Your task to perform on an android device: Go to notification settings Image 0: 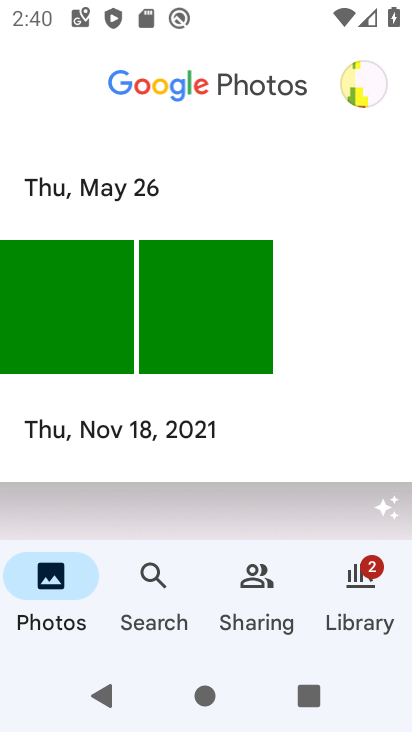
Step 0: press home button
Your task to perform on an android device: Go to notification settings Image 1: 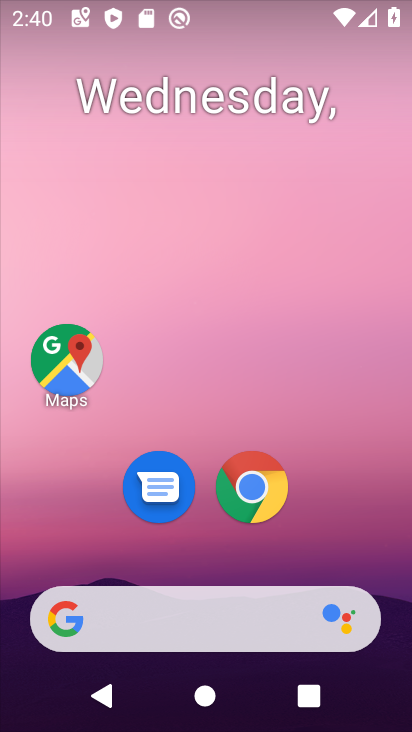
Step 1: drag from (366, 552) to (349, 191)
Your task to perform on an android device: Go to notification settings Image 2: 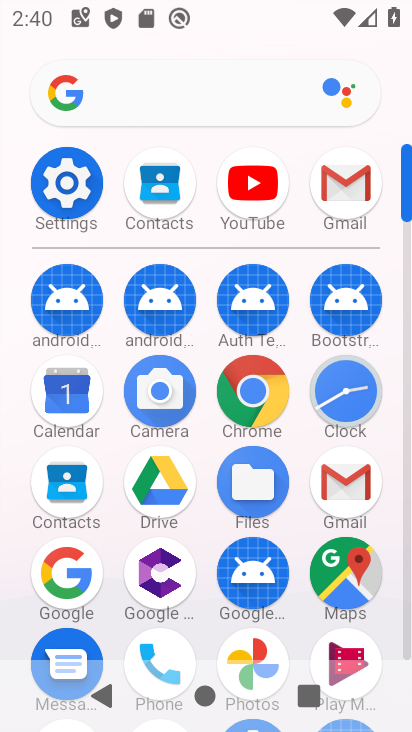
Step 2: click (76, 200)
Your task to perform on an android device: Go to notification settings Image 3: 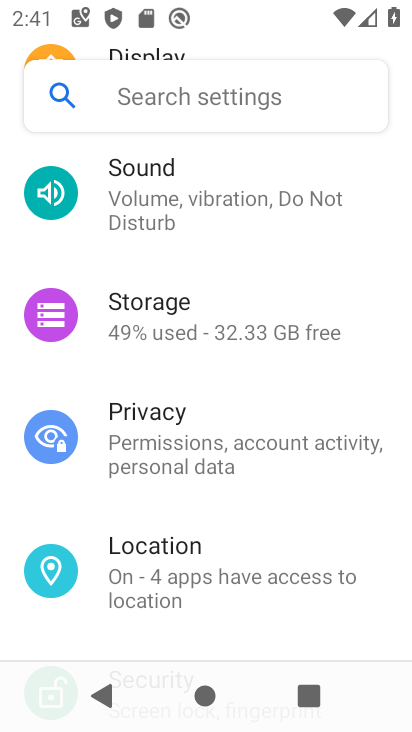
Step 3: drag from (310, 262) to (316, 386)
Your task to perform on an android device: Go to notification settings Image 4: 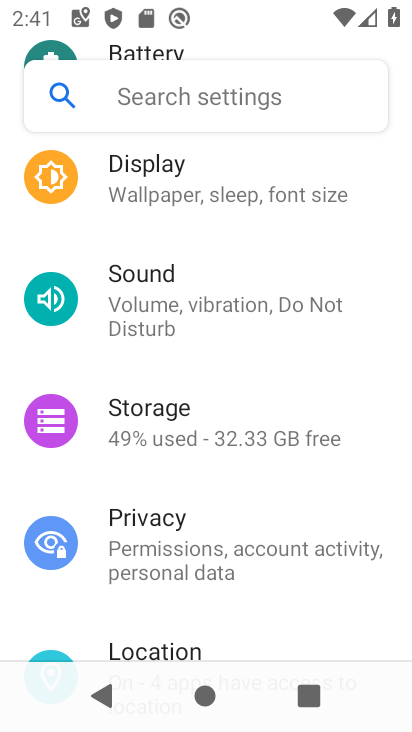
Step 4: drag from (365, 259) to (362, 359)
Your task to perform on an android device: Go to notification settings Image 5: 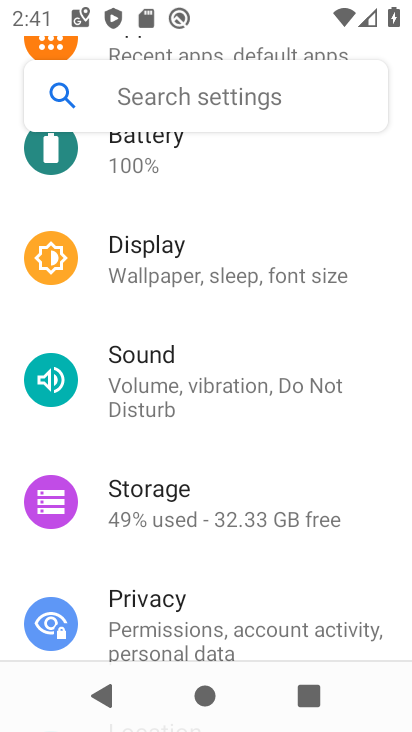
Step 5: drag from (360, 234) to (361, 345)
Your task to perform on an android device: Go to notification settings Image 6: 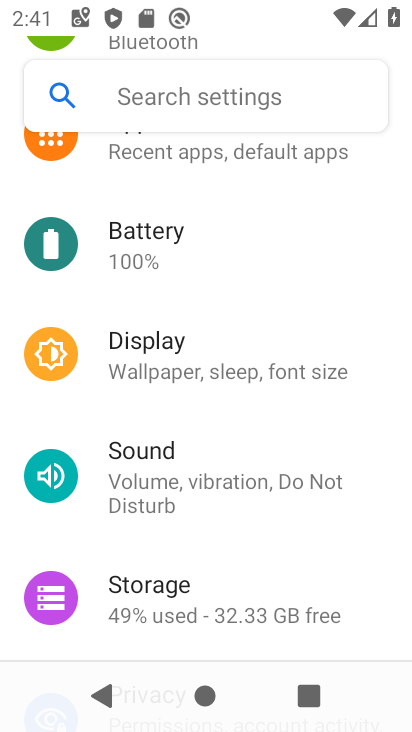
Step 6: drag from (353, 255) to (353, 371)
Your task to perform on an android device: Go to notification settings Image 7: 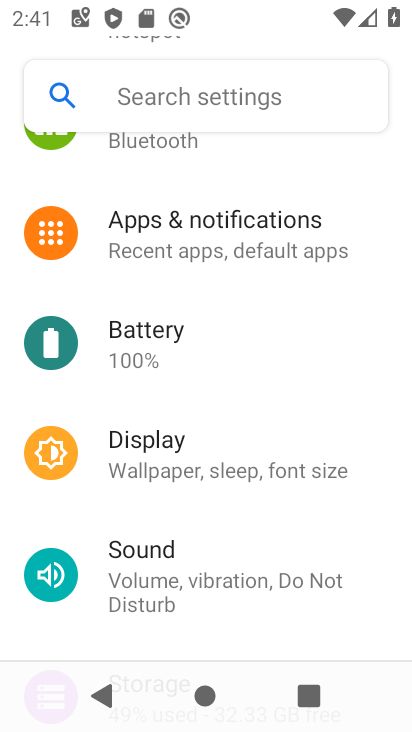
Step 7: drag from (366, 211) to (356, 371)
Your task to perform on an android device: Go to notification settings Image 8: 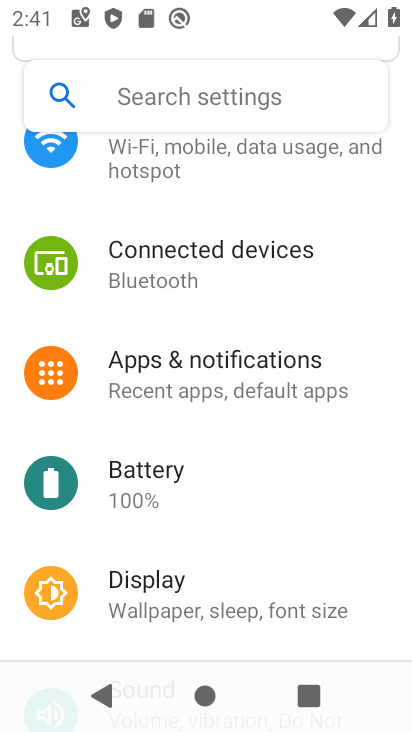
Step 8: drag from (357, 234) to (363, 418)
Your task to perform on an android device: Go to notification settings Image 9: 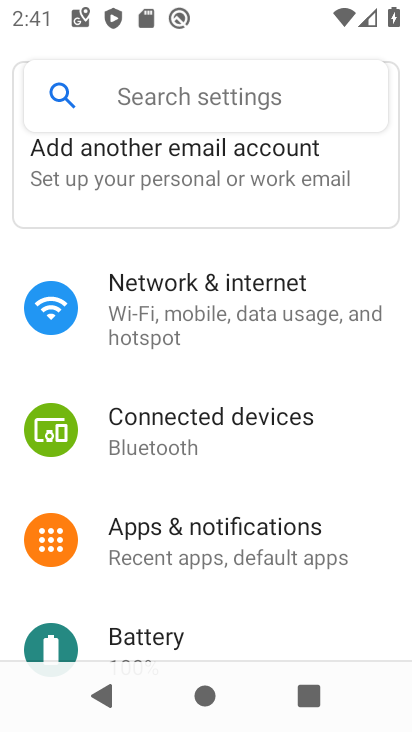
Step 9: drag from (351, 369) to (363, 508)
Your task to perform on an android device: Go to notification settings Image 10: 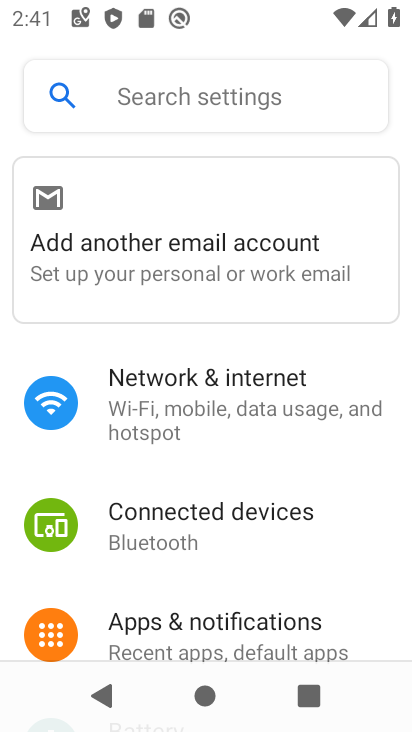
Step 10: click (262, 650)
Your task to perform on an android device: Go to notification settings Image 11: 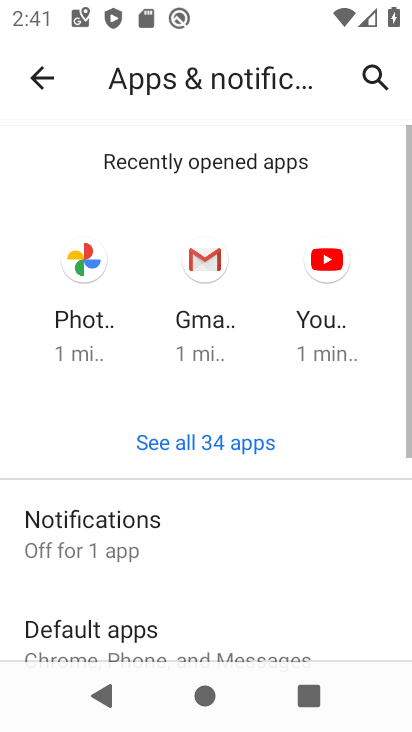
Step 11: drag from (289, 548) to (316, 228)
Your task to perform on an android device: Go to notification settings Image 12: 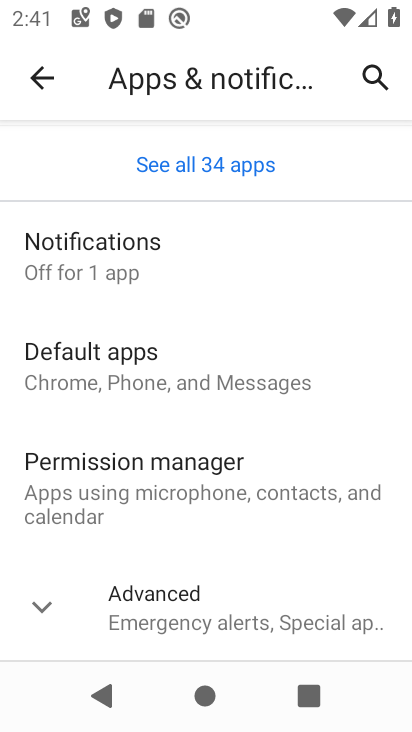
Step 12: click (179, 262)
Your task to perform on an android device: Go to notification settings Image 13: 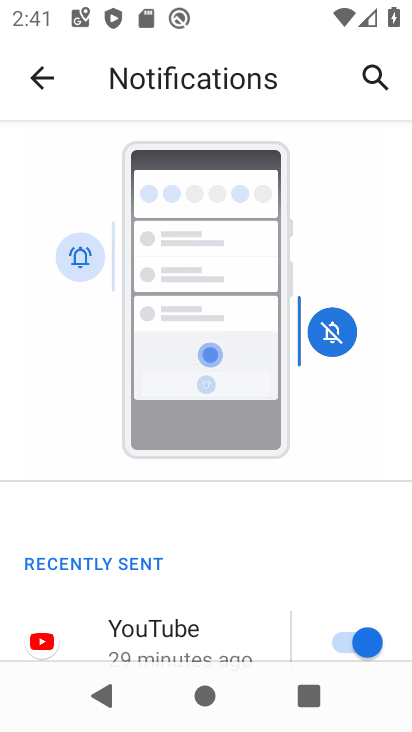
Step 13: task complete